Your task to perform on an android device: Open Google Maps Image 0: 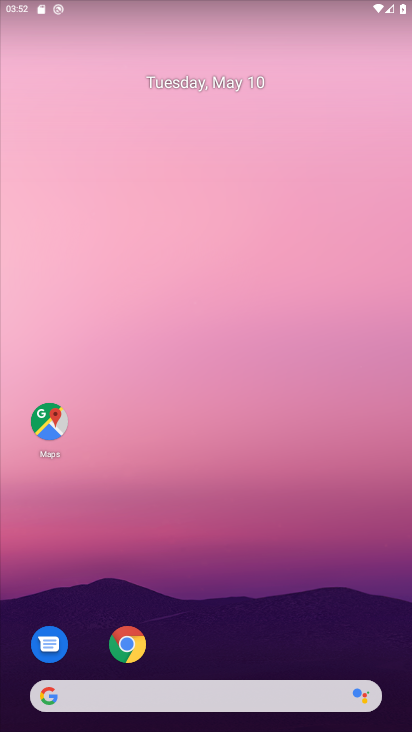
Step 0: click (47, 413)
Your task to perform on an android device: Open Google Maps Image 1: 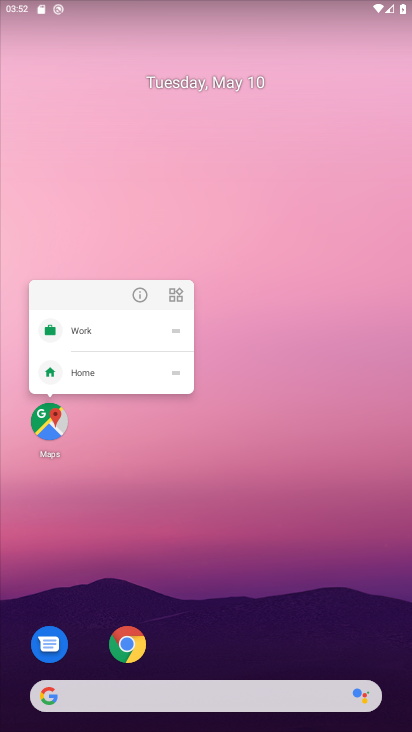
Step 1: click (50, 417)
Your task to perform on an android device: Open Google Maps Image 2: 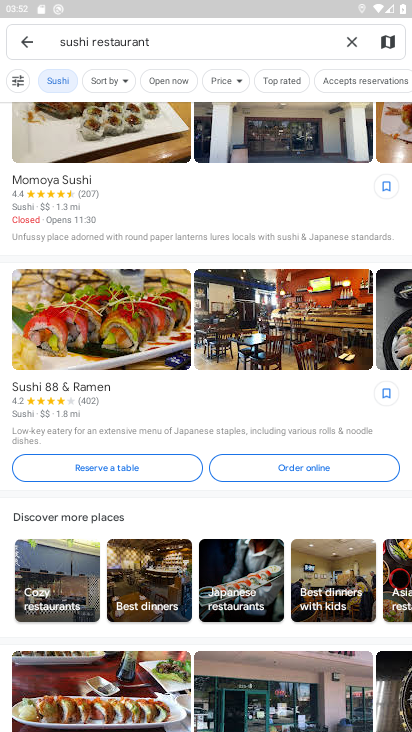
Step 2: click (28, 35)
Your task to perform on an android device: Open Google Maps Image 3: 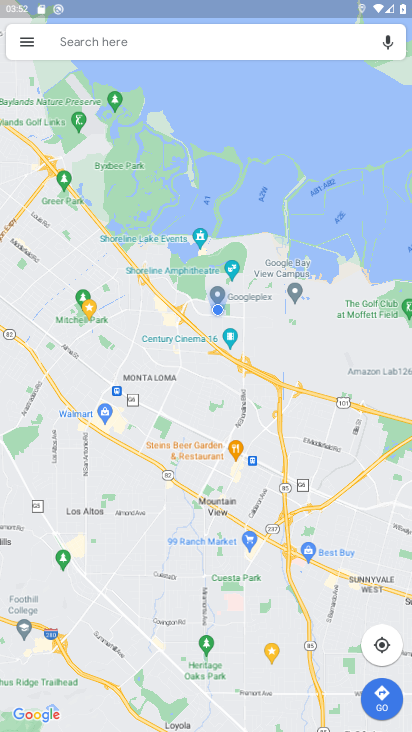
Step 3: task complete